Your task to perform on an android device: When is my next meeting? Image 0: 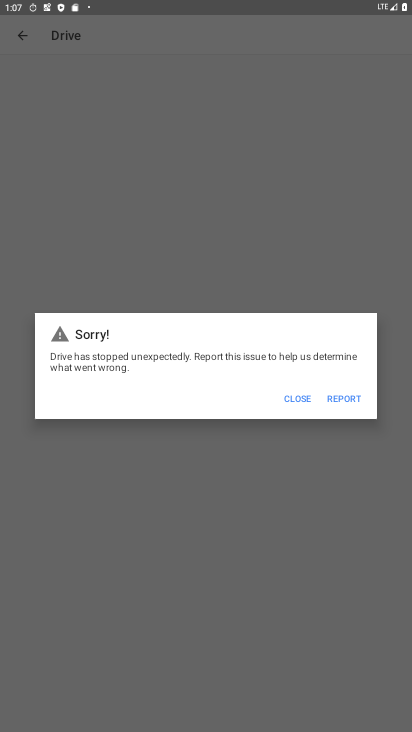
Step 0: press home button
Your task to perform on an android device: When is my next meeting? Image 1: 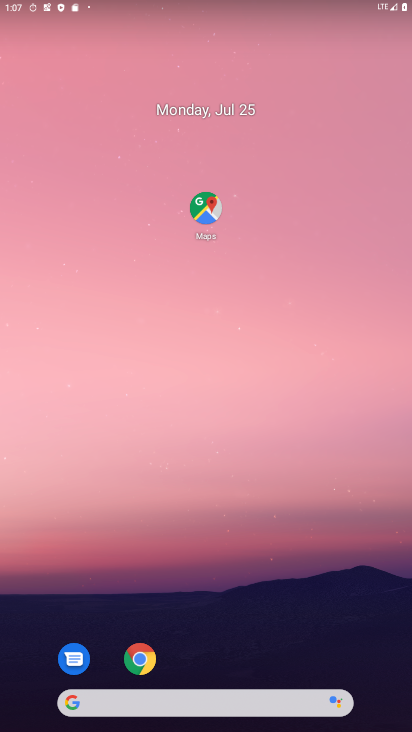
Step 1: drag from (69, 608) to (350, 74)
Your task to perform on an android device: When is my next meeting? Image 2: 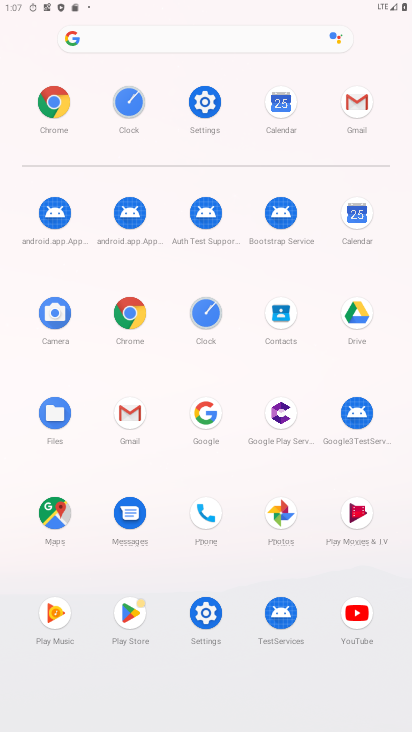
Step 2: click (352, 222)
Your task to perform on an android device: When is my next meeting? Image 3: 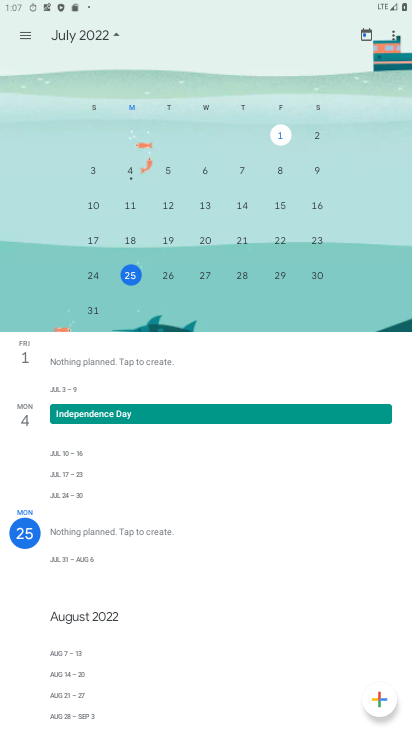
Step 3: task complete